Your task to perform on an android device: Open the web browser Image 0: 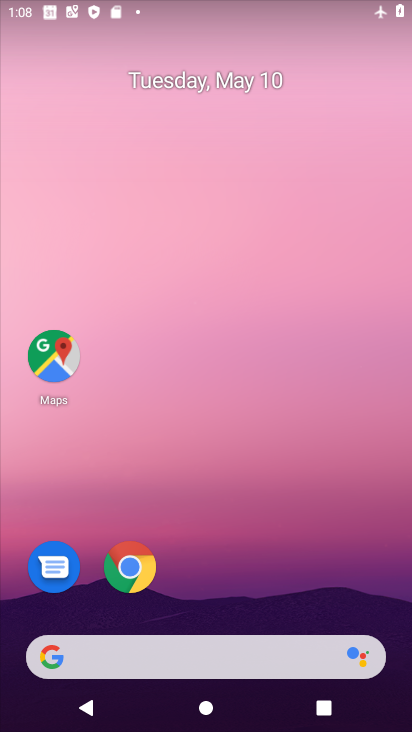
Step 0: click (149, 576)
Your task to perform on an android device: Open the web browser Image 1: 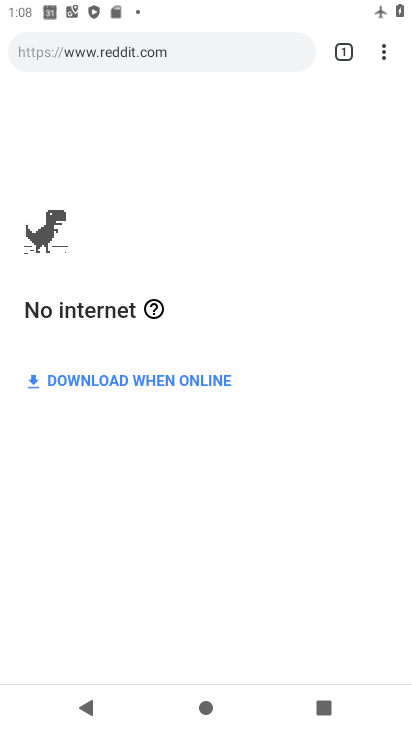
Step 1: task complete